Your task to perform on an android device: turn vacation reply on in the gmail app Image 0: 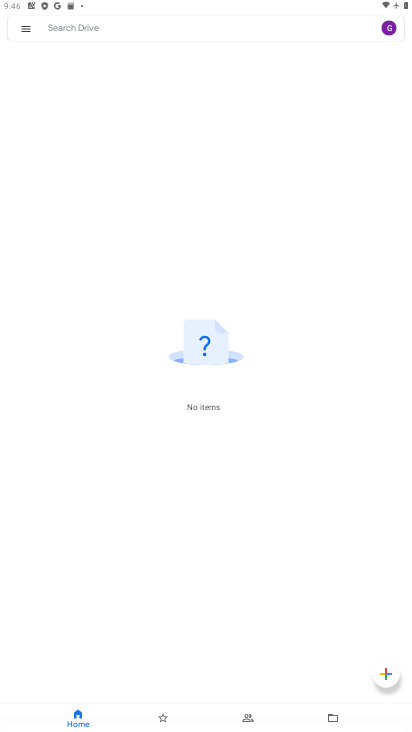
Step 0: press home button
Your task to perform on an android device: turn vacation reply on in the gmail app Image 1: 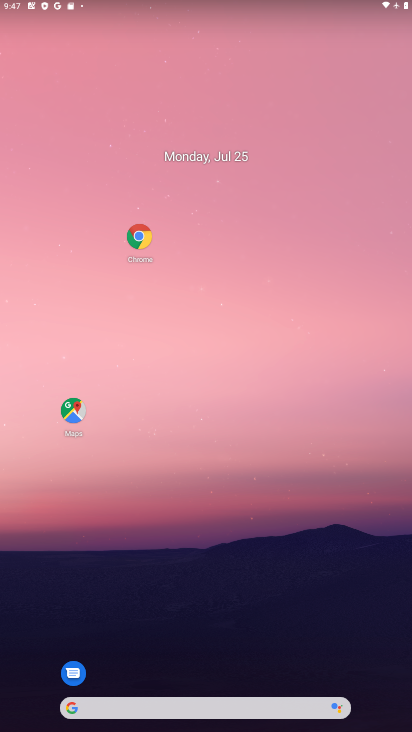
Step 1: drag from (271, 664) to (280, 95)
Your task to perform on an android device: turn vacation reply on in the gmail app Image 2: 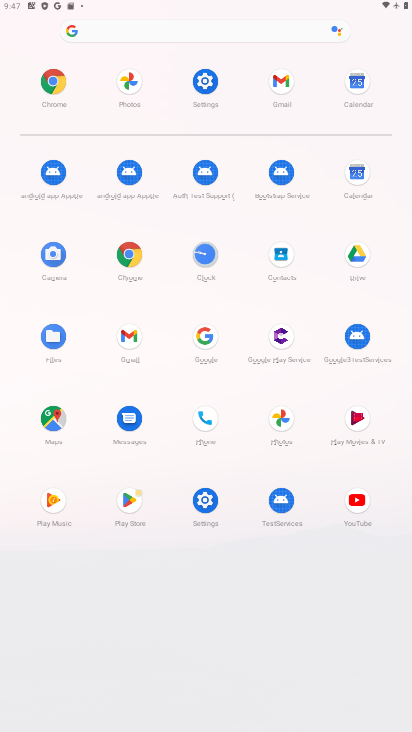
Step 2: click (278, 95)
Your task to perform on an android device: turn vacation reply on in the gmail app Image 3: 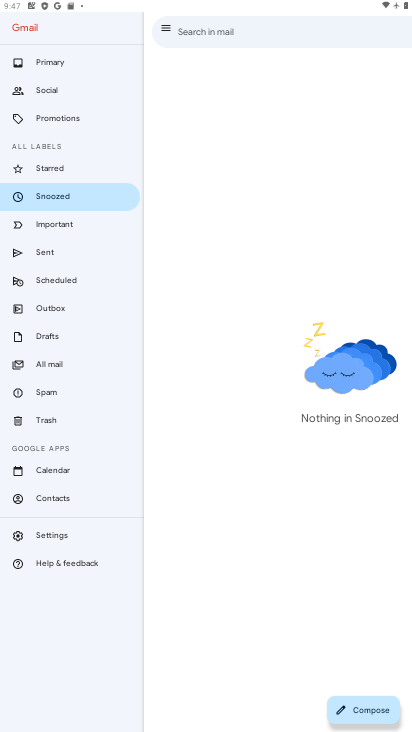
Step 3: task complete